Your task to perform on an android device: turn off priority inbox in the gmail app Image 0: 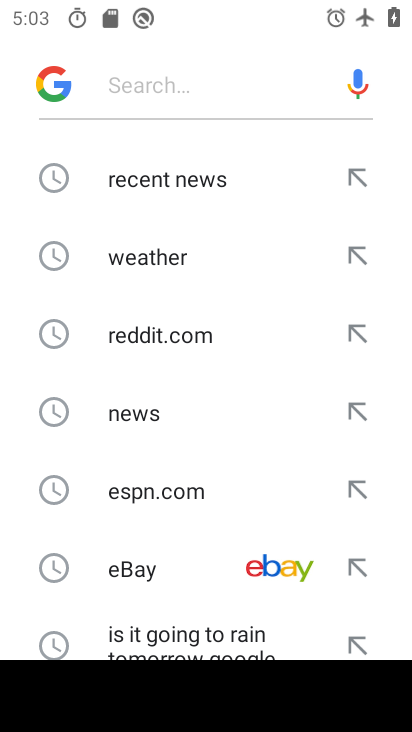
Step 0: press home button
Your task to perform on an android device: turn off priority inbox in the gmail app Image 1: 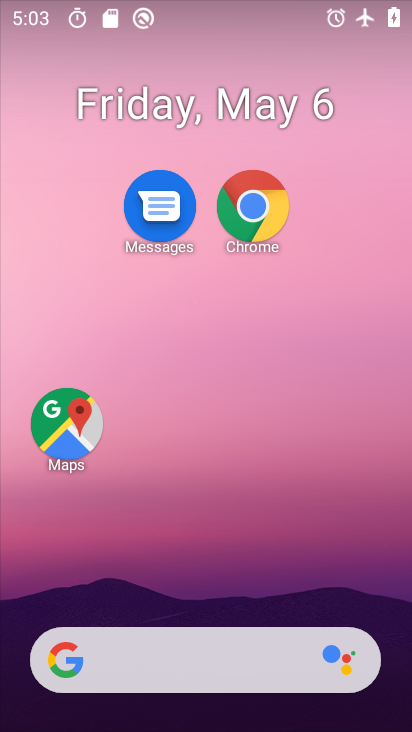
Step 1: drag from (146, 630) to (163, 263)
Your task to perform on an android device: turn off priority inbox in the gmail app Image 2: 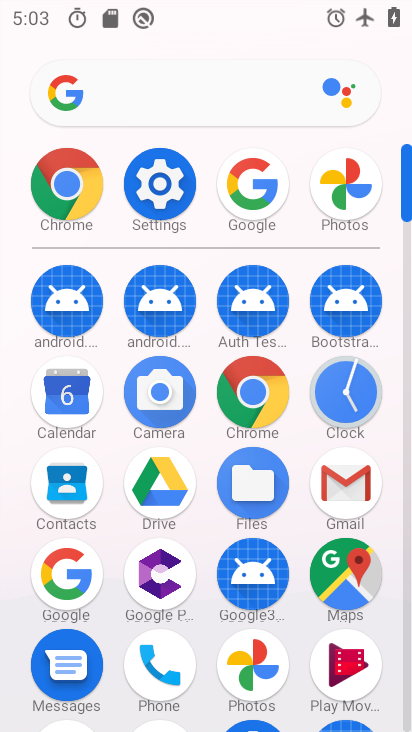
Step 2: click (348, 481)
Your task to perform on an android device: turn off priority inbox in the gmail app Image 3: 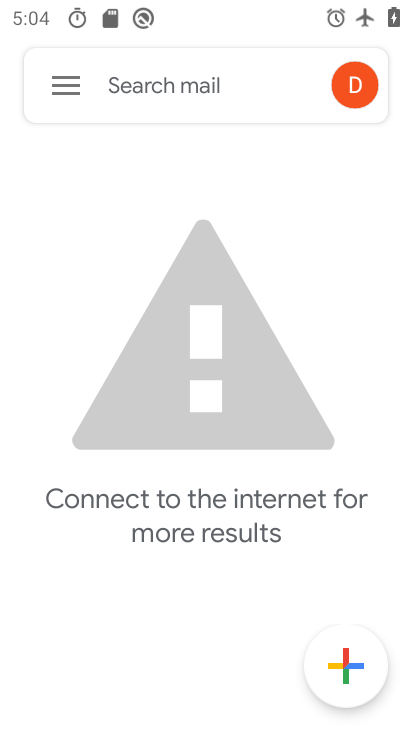
Step 3: click (349, 99)
Your task to perform on an android device: turn off priority inbox in the gmail app Image 4: 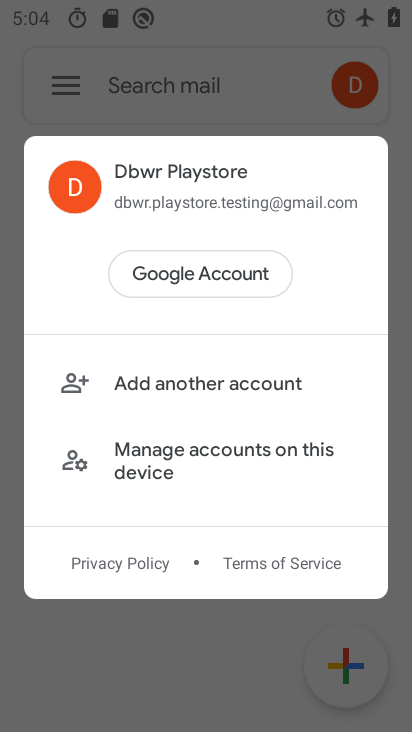
Step 4: click (209, 657)
Your task to perform on an android device: turn off priority inbox in the gmail app Image 5: 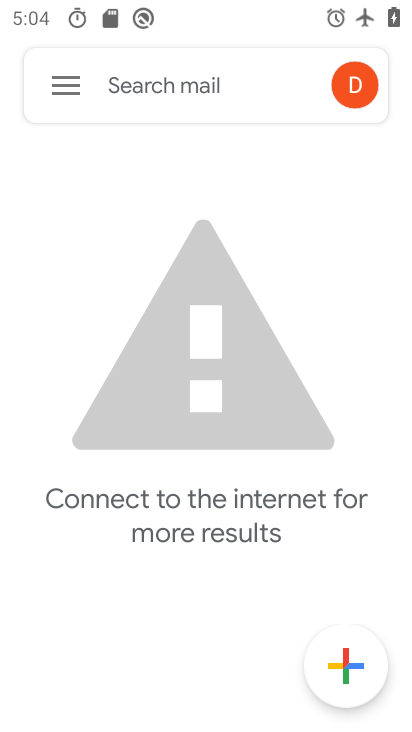
Step 5: click (72, 83)
Your task to perform on an android device: turn off priority inbox in the gmail app Image 6: 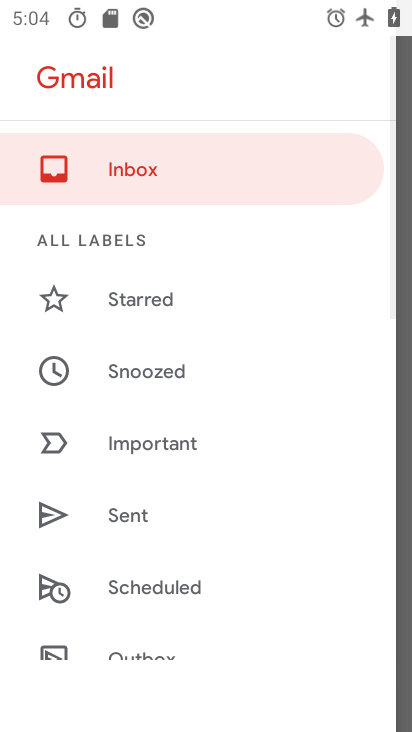
Step 6: drag from (156, 643) to (197, 301)
Your task to perform on an android device: turn off priority inbox in the gmail app Image 7: 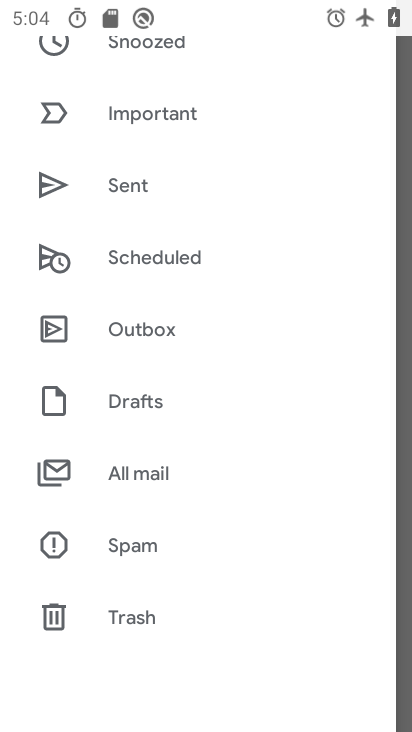
Step 7: drag from (137, 634) to (175, 207)
Your task to perform on an android device: turn off priority inbox in the gmail app Image 8: 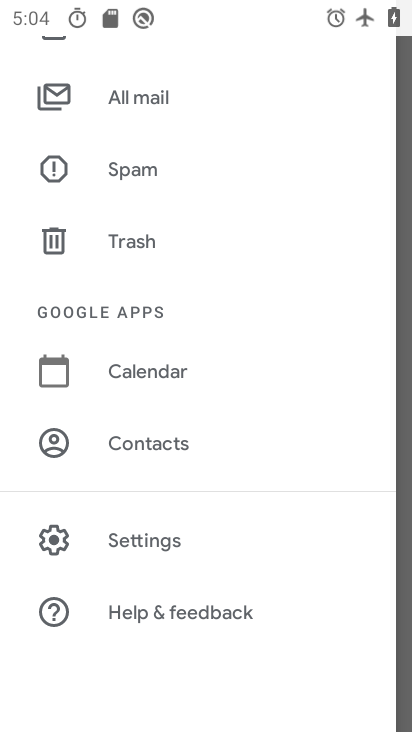
Step 8: click (168, 534)
Your task to perform on an android device: turn off priority inbox in the gmail app Image 9: 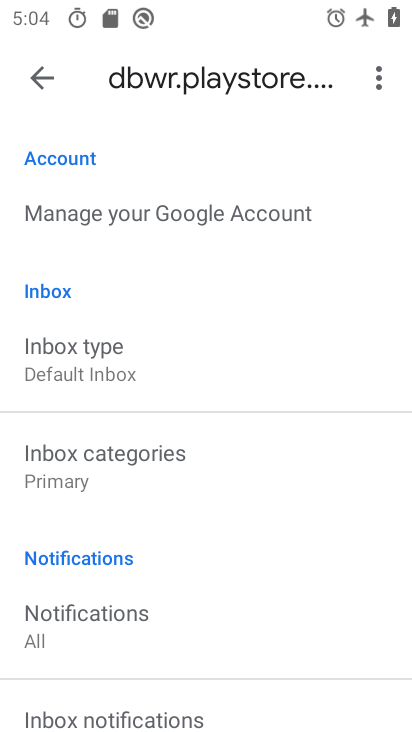
Step 9: click (90, 359)
Your task to perform on an android device: turn off priority inbox in the gmail app Image 10: 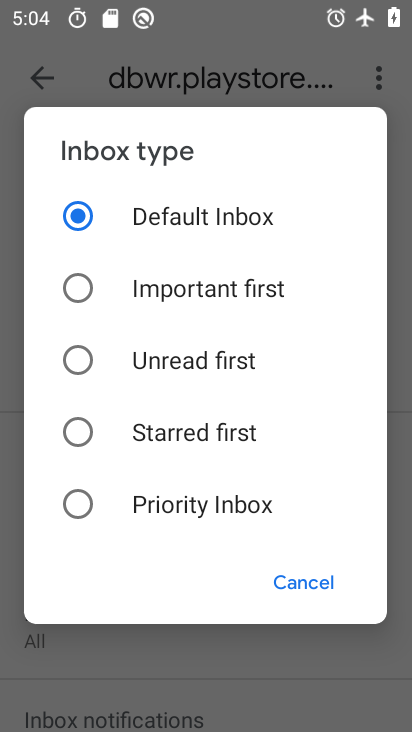
Step 10: click (158, 603)
Your task to perform on an android device: turn off priority inbox in the gmail app Image 11: 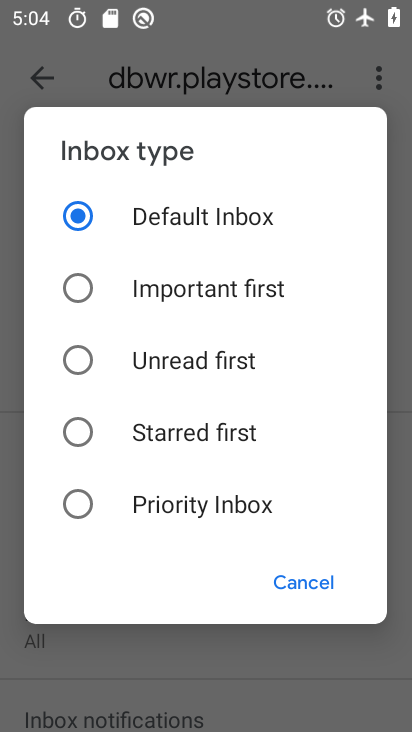
Step 11: click (303, 593)
Your task to perform on an android device: turn off priority inbox in the gmail app Image 12: 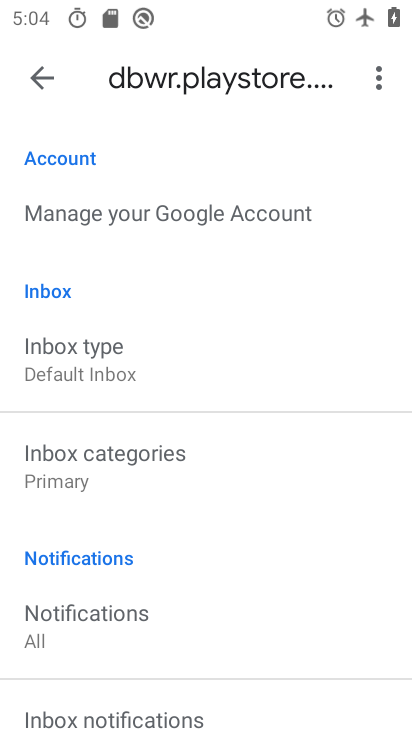
Step 12: click (298, 576)
Your task to perform on an android device: turn off priority inbox in the gmail app Image 13: 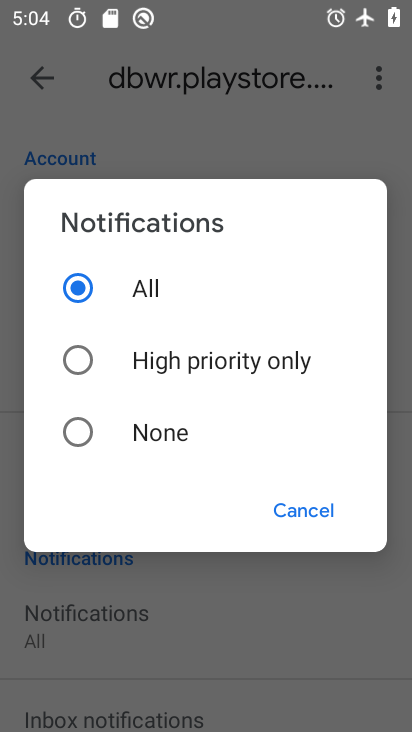
Step 13: click (273, 516)
Your task to perform on an android device: turn off priority inbox in the gmail app Image 14: 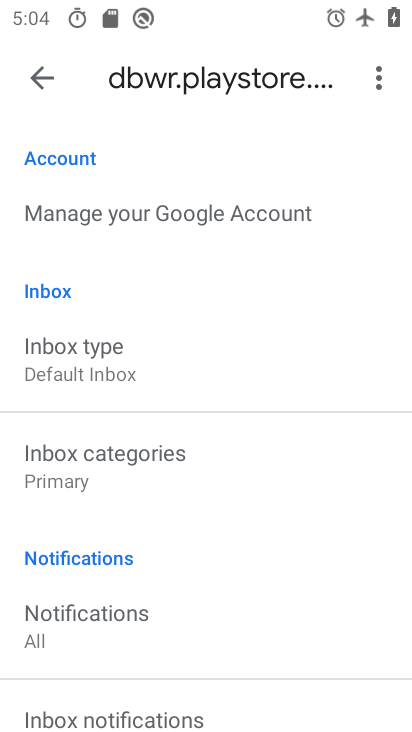
Step 14: task complete